Your task to perform on an android device: Open battery settings Image 0: 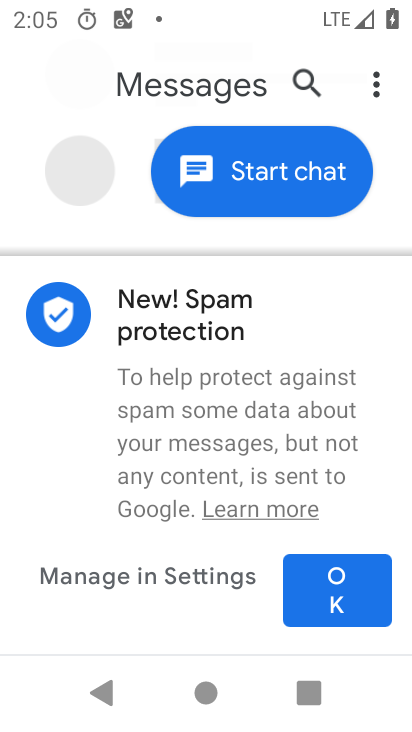
Step 0: press home button
Your task to perform on an android device: Open battery settings Image 1: 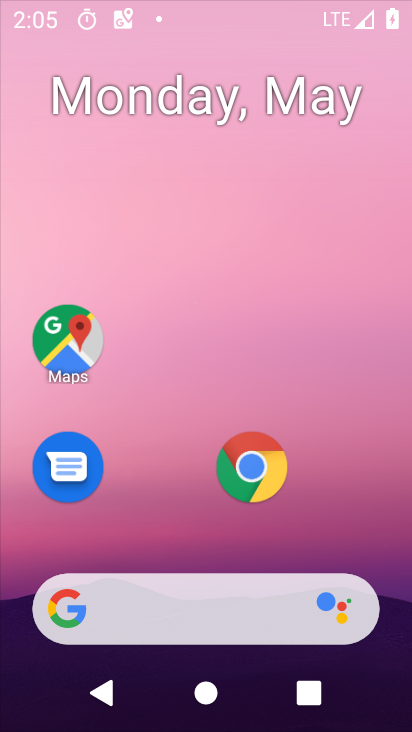
Step 1: drag from (203, 572) to (208, 44)
Your task to perform on an android device: Open battery settings Image 2: 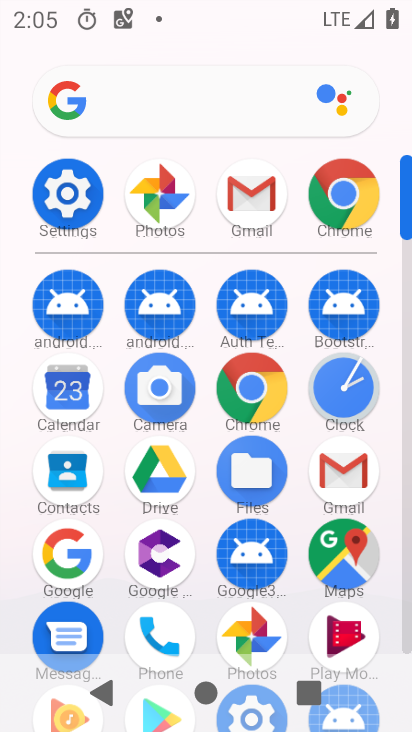
Step 2: click (53, 193)
Your task to perform on an android device: Open battery settings Image 3: 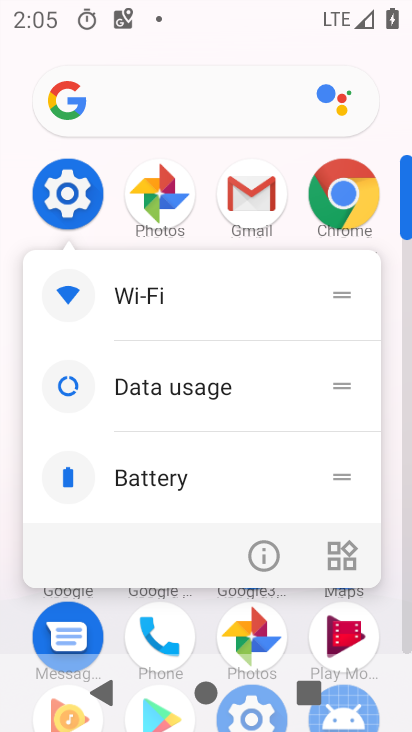
Step 3: click (259, 543)
Your task to perform on an android device: Open battery settings Image 4: 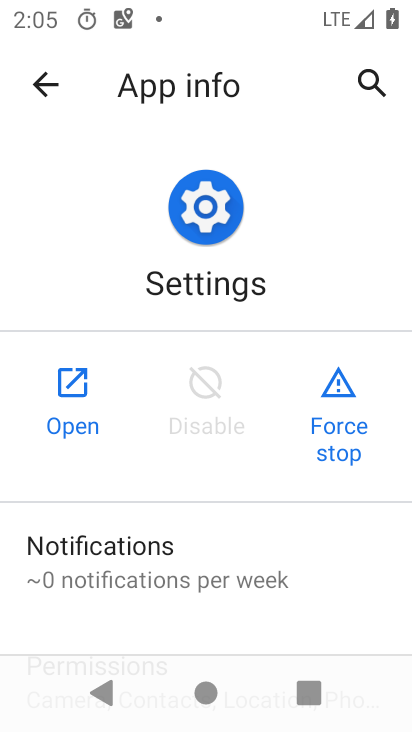
Step 4: click (63, 394)
Your task to perform on an android device: Open battery settings Image 5: 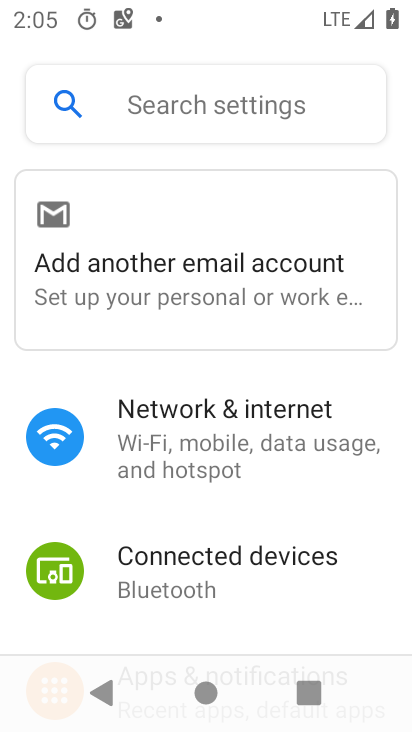
Step 5: drag from (248, 559) to (332, 206)
Your task to perform on an android device: Open battery settings Image 6: 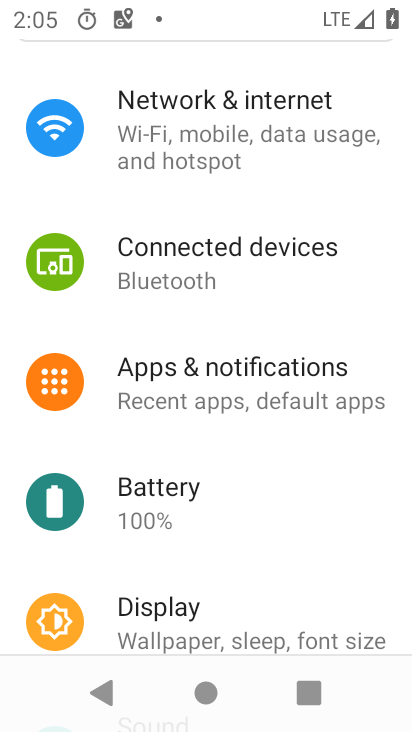
Step 6: click (196, 497)
Your task to perform on an android device: Open battery settings Image 7: 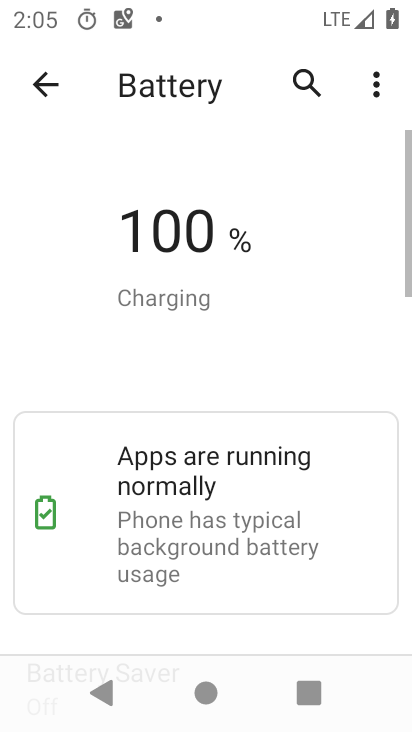
Step 7: task complete